Your task to perform on an android device: change your default location settings in chrome Image 0: 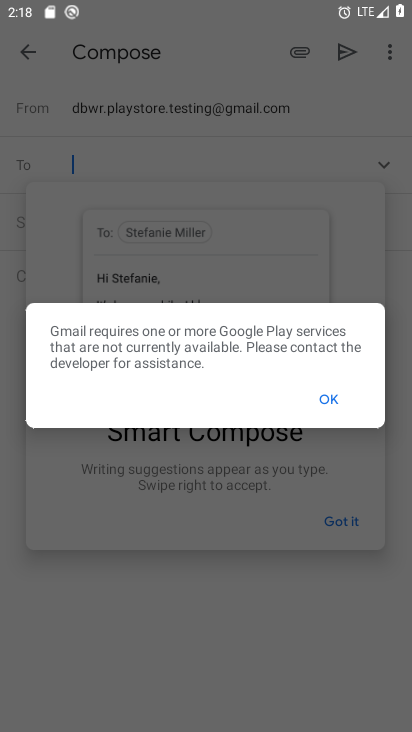
Step 0: press home button
Your task to perform on an android device: change your default location settings in chrome Image 1: 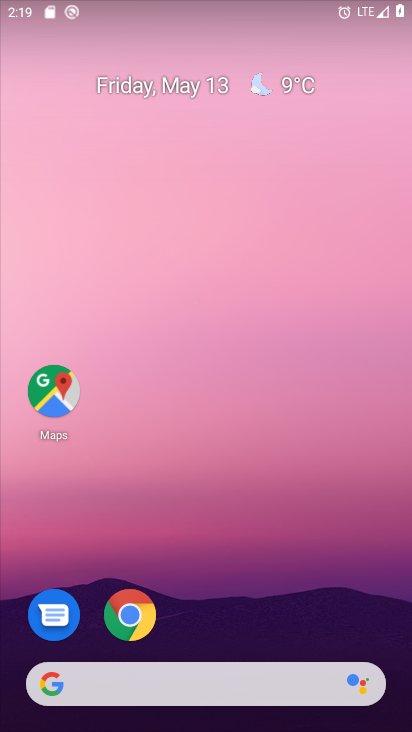
Step 1: click (137, 641)
Your task to perform on an android device: change your default location settings in chrome Image 2: 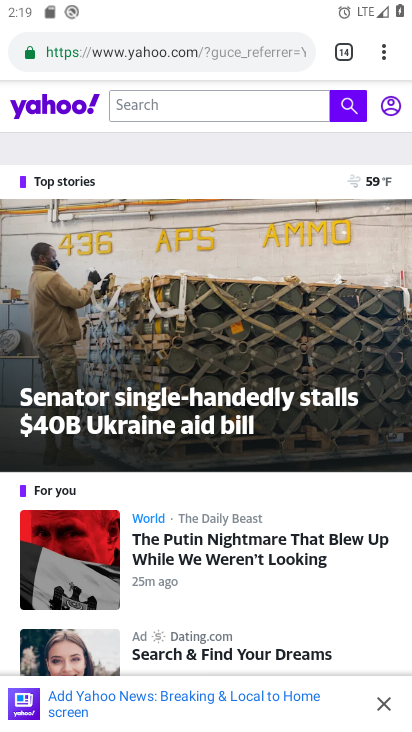
Step 2: click (382, 53)
Your task to perform on an android device: change your default location settings in chrome Image 3: 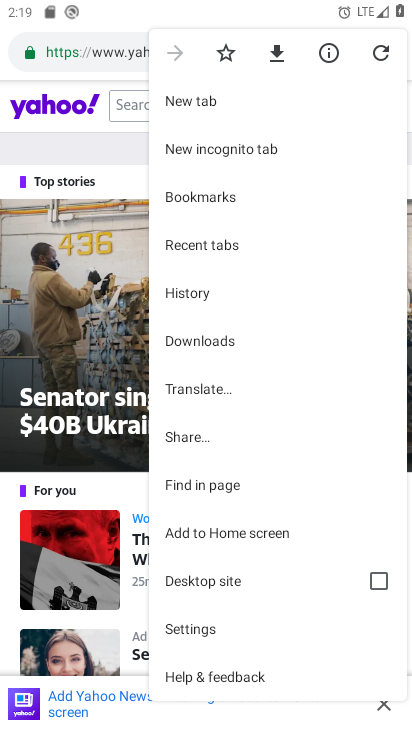
Step 3: click (209, 612)
Your task to perform on an android device: change your default location settings in chrome Image 4: 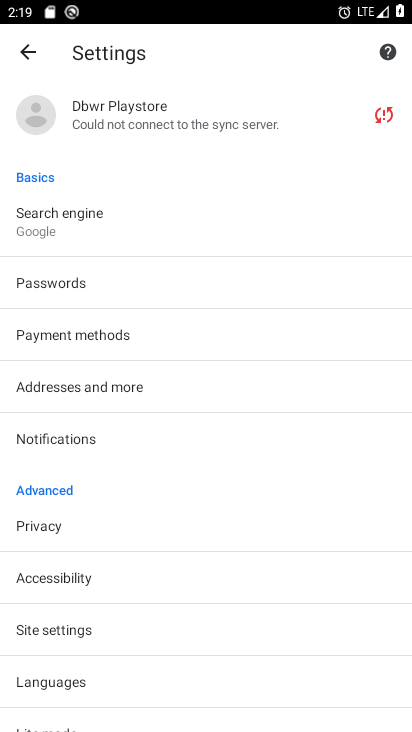
Step 4: click (131, 623)
Your task to perform on an android device: change your default location settings in chrome Image 5: 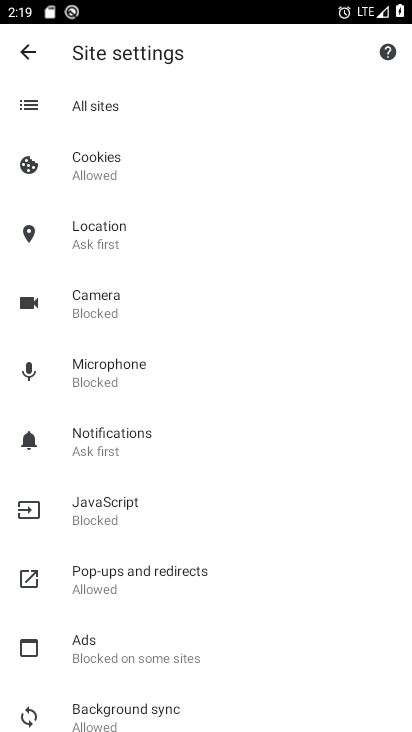
Step 5: click (155, 243)
Your task to perform on an android device: change your default location settings in chrome Image 6: 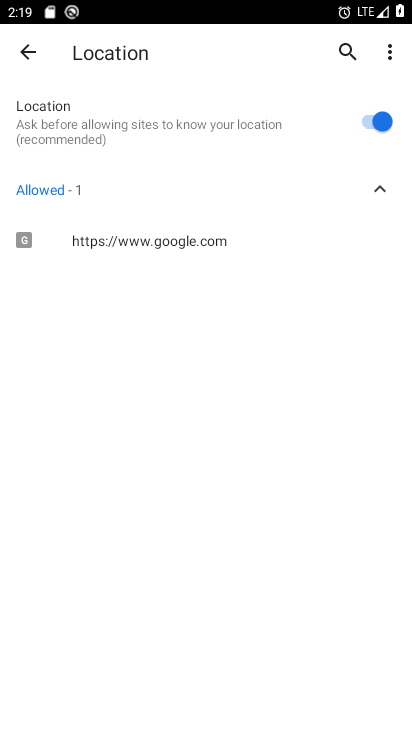
Step 6: task complete